Your task to perform on an android device: Open Reddit.com Image 0: 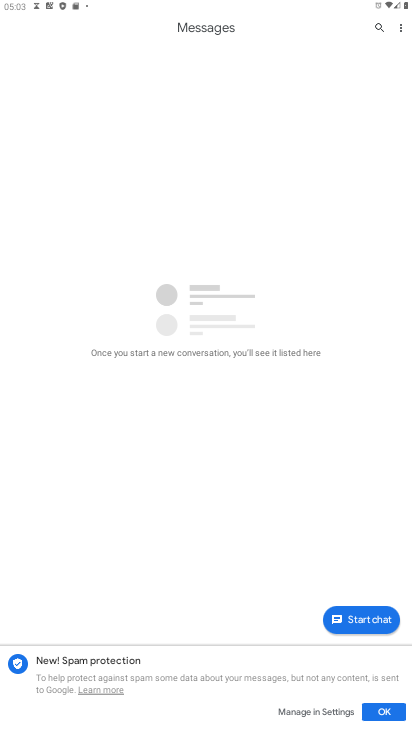
Step 0: press home button
Your task to perform on an android device: Open Reddit.com Image 1: 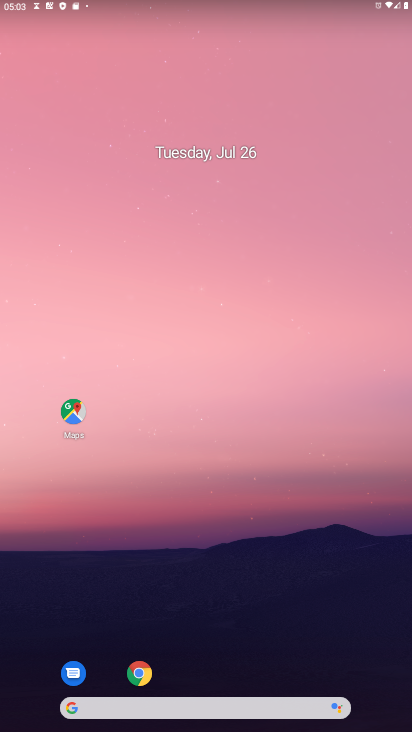
Step 1: click (140, 671)
Your task to perform on an android device: Open Reddit.com Image 2: 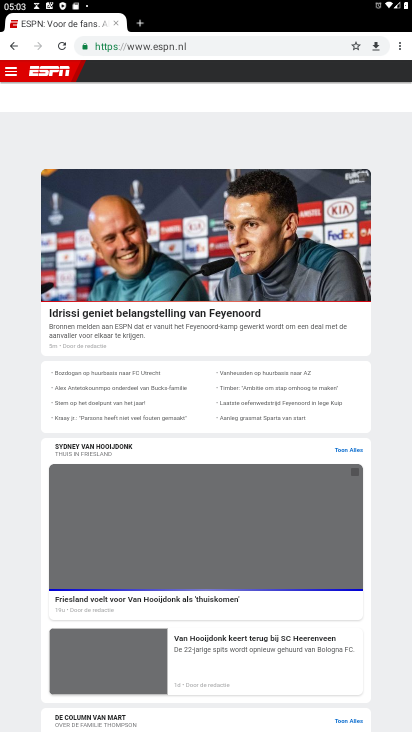
Step 2: click (240, 43)
Your task to perform on an android device: Open Reddit.com Image 3: 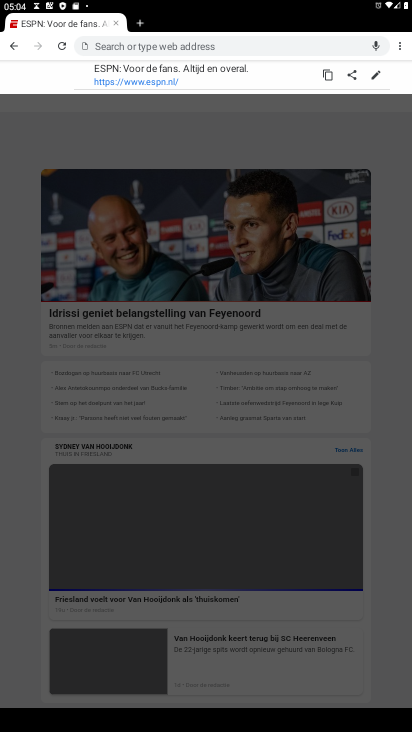
Step 3: type "Reddit.com"
Your task to perform on an android device: Open Reddit.com Image 4: 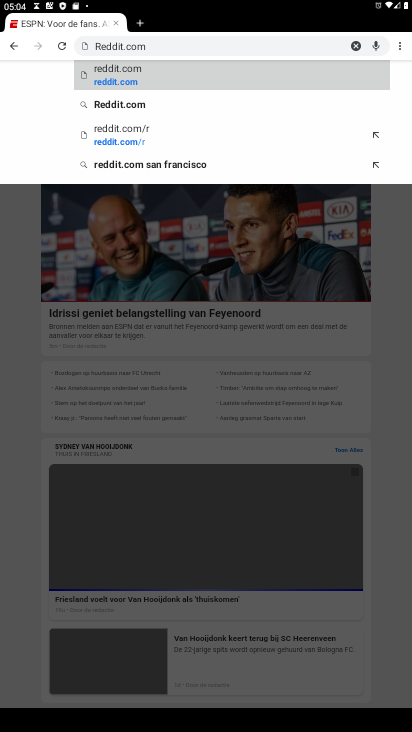
Step 4: click (117, 105)
Your task to perform on an android device: Open Reddit.com Image 5: 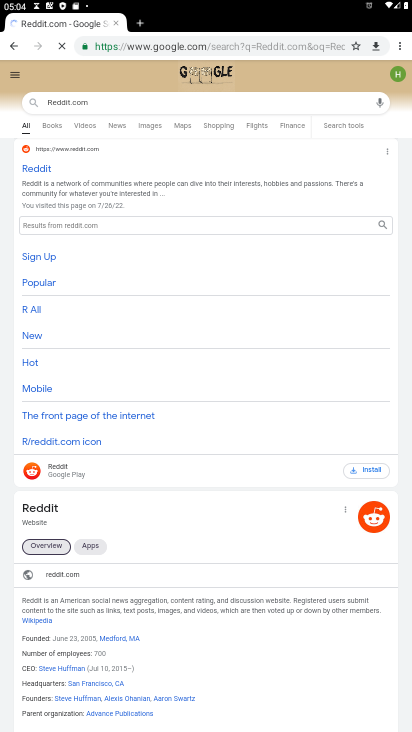
Step 5: click (45, 175)
Your task to perform on an android device: Open Reddit.com Image 6: 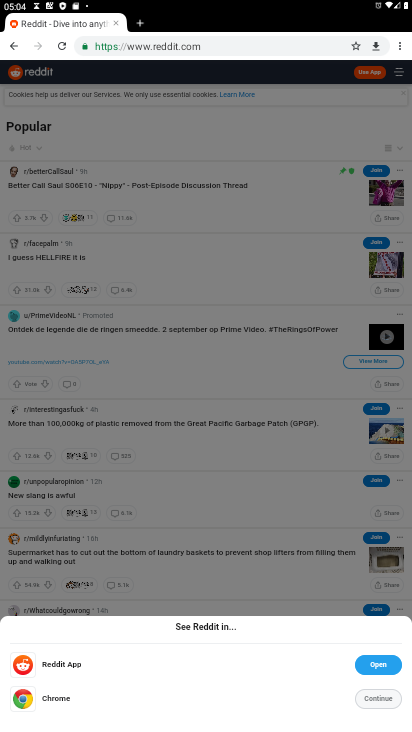
Step 6: click (376, 699)
Your task to perform on an android device: Open Reddit.com Image 7: 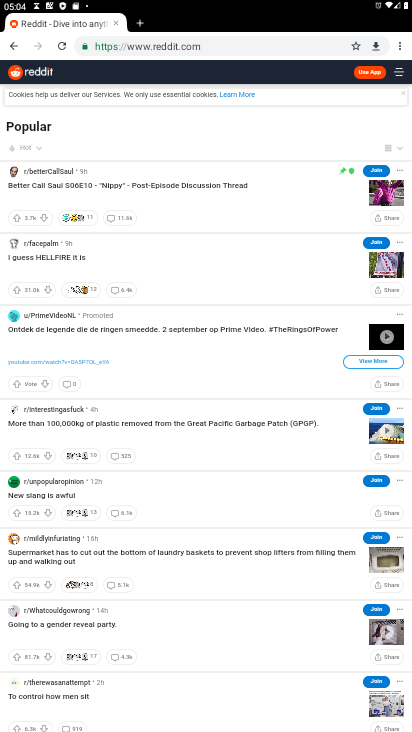
Step 7: task complete